Your task to perform on an android device: Is it going to rain tomorrow? Image 0: 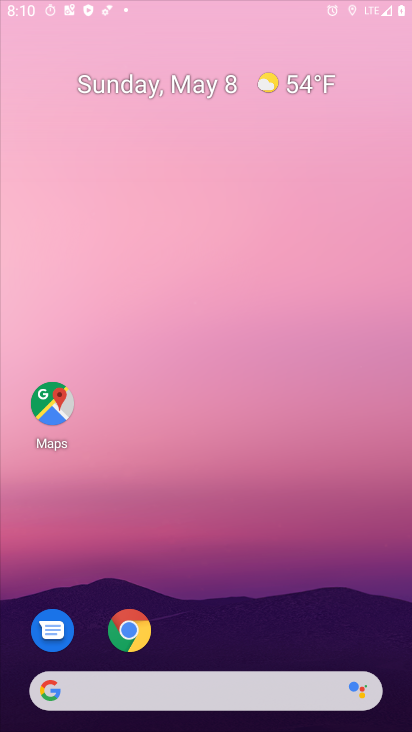
Step 0: drag from (199, 377) to (253, 17)
Your task to perform on an android device: Is it going to rain tomorrow? Image 1: 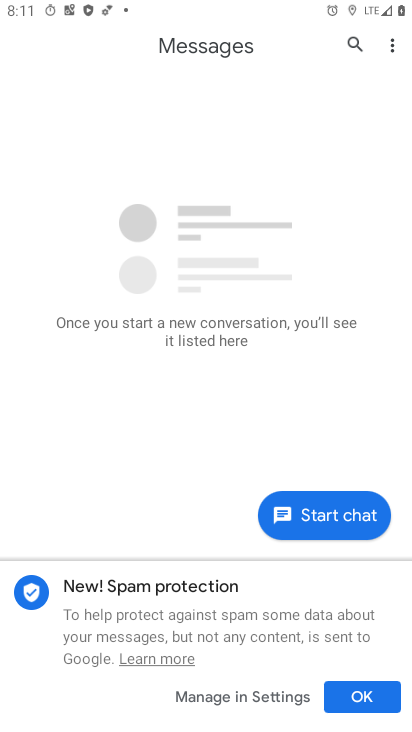
Step 1: press home button
Your task to perform on an android device: Is it going to rain tomorrow? Image 2: 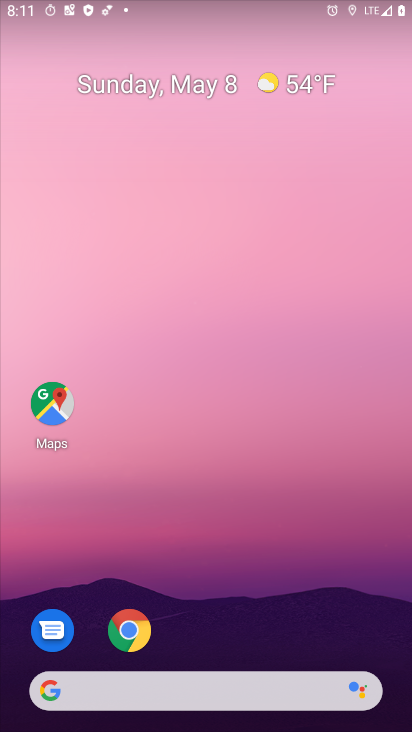
Step 2: drag from (241, 653) to (178, 10)
Your task to perform on an android device: Is it going to rain tomorrow? Image 3: 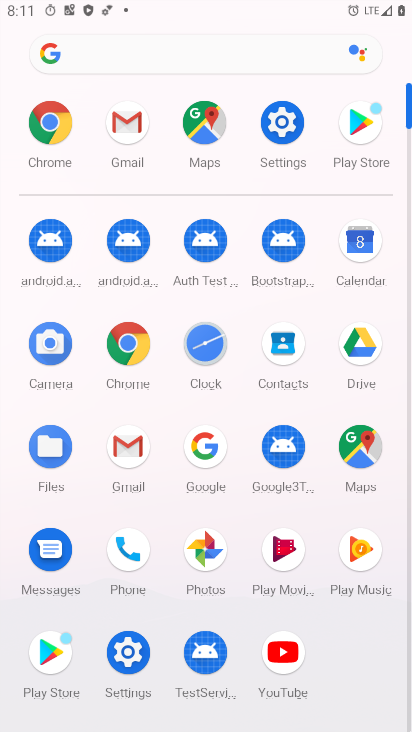
Step 3: click (350, 246)
Your task to perform on an android device: Is it going to rain tomorrow? Image 4: 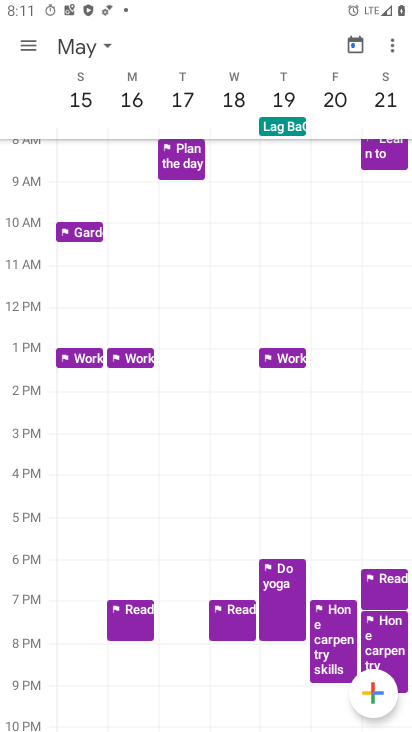
Step 4: press home button
Your task to perform on an android device: Is it going to rain tomorrow? Image 5: 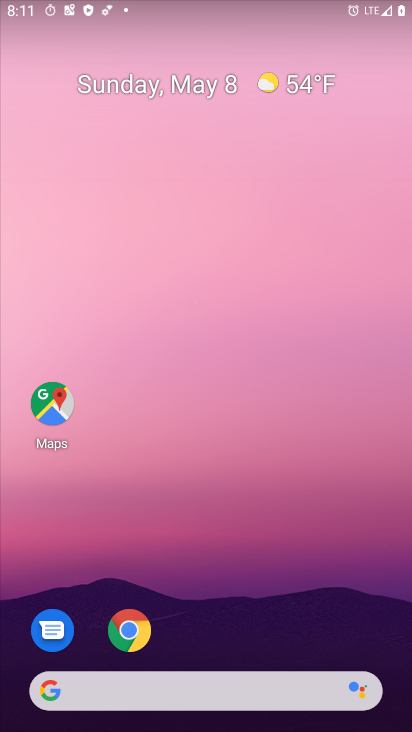
Step 5: drag from (225, 665) to (295, 29)
Your task to perform on an android device: Is it going to rain tomorrow? Image 6: 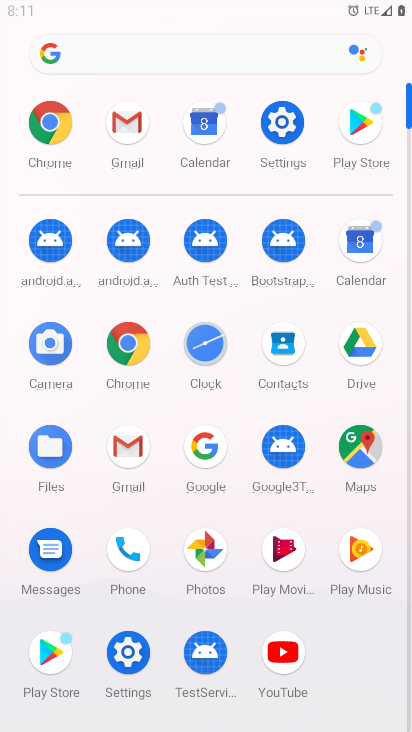
Step 6: press home button
Your task to perform on an android device: Is it going to rain tomorrow? Image 7: 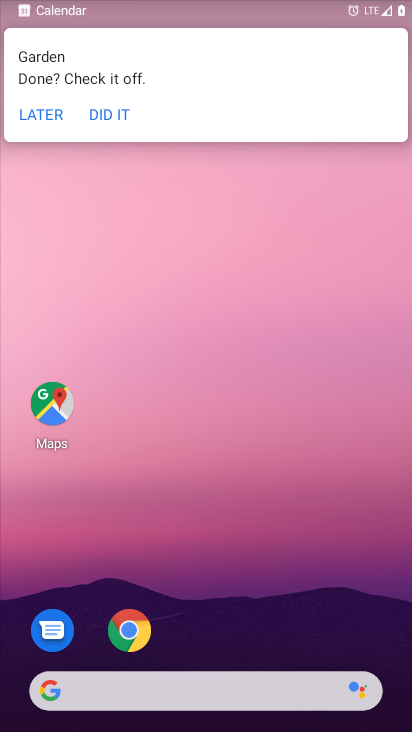
Step 7: click (167, 684)
Your task to perform on an android device: Is it going to rain tomorrow? Image 8: 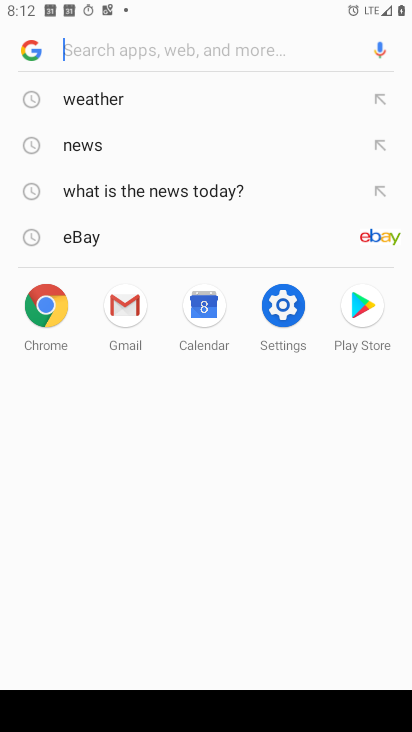
Step 8: click (90, 104)
Your task to perform on an android device: Is it going to rain tomorrow? Image 9: 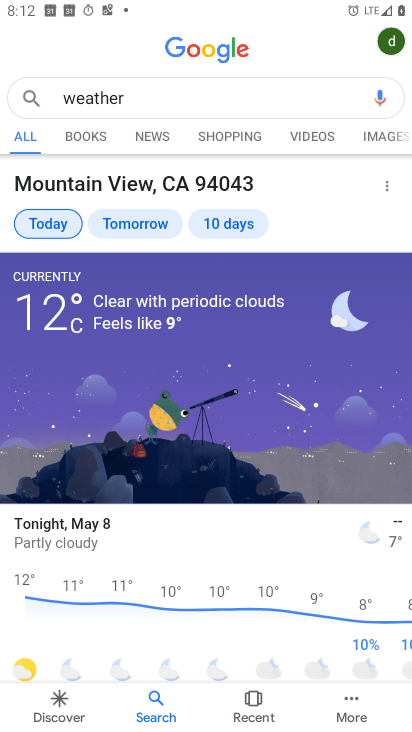
Step 9: task complete